Your task to perform on an android device: check storage Image 0: 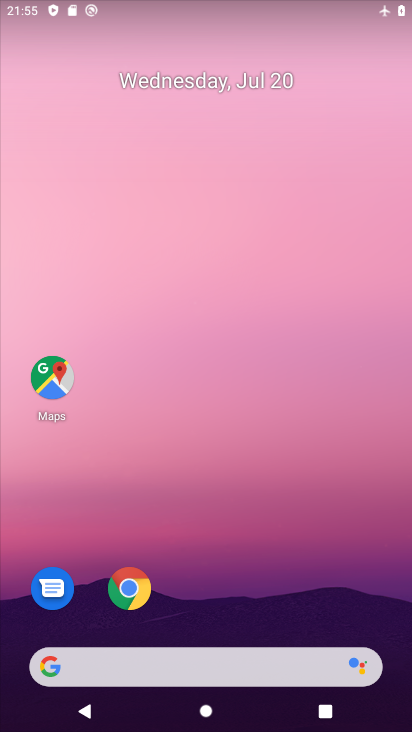
Step 0: drag from (383, 633) to (351, 114)
Your task to perform on an android device: check storage Image 1: 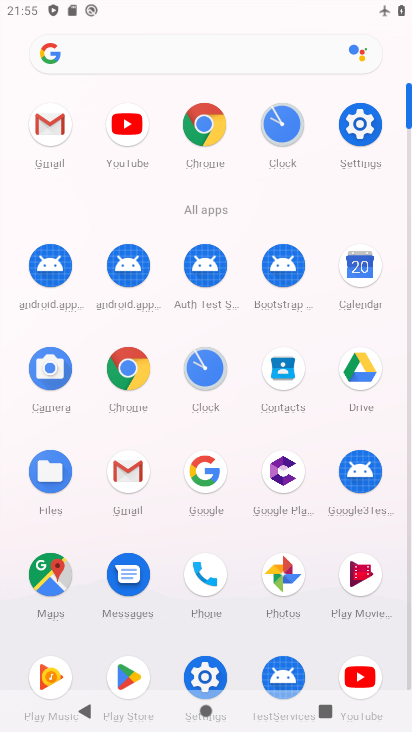
Step 1: click (202, 675)
Your task to perform on an android device: check storage Image 2: 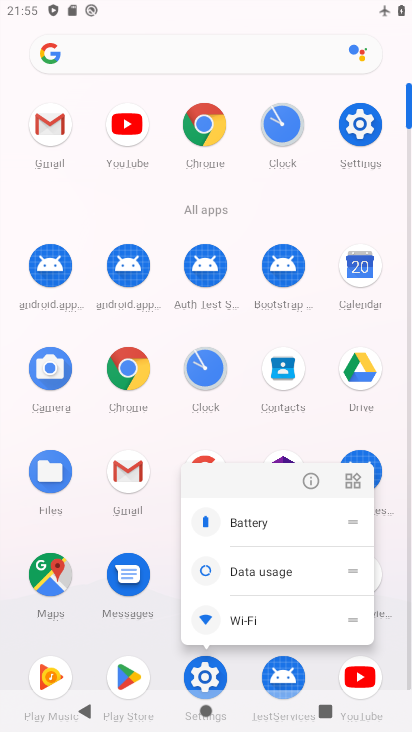
Step 2: click (205, 676)
Your task to perform on an android device: check storage Image 3: 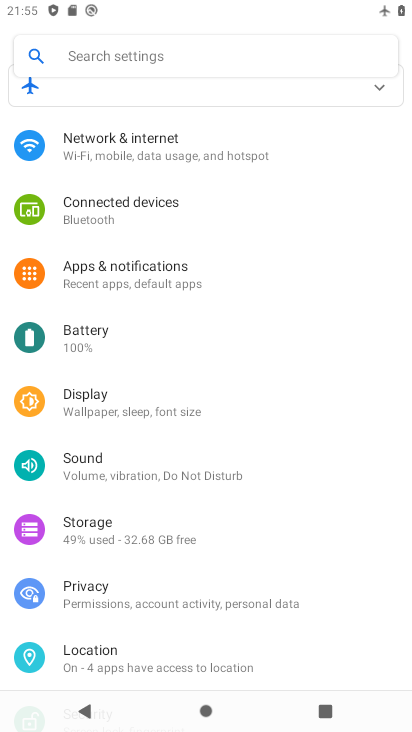
Step 3: click (97, 523)
Your task to perform on an android device: check storage Image 4: 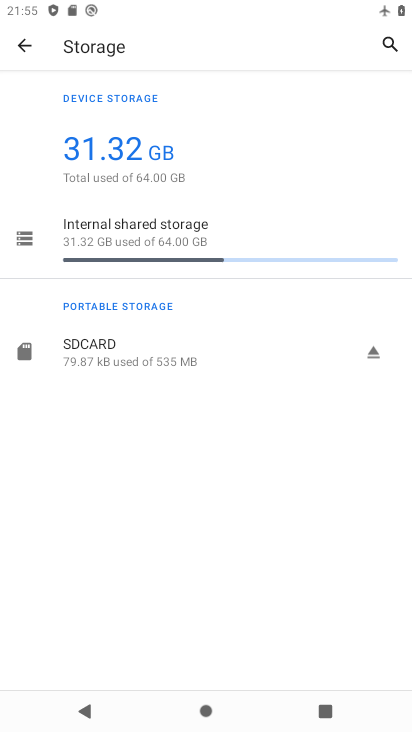
Step 4: task complete